Your task to perform on an android device: What time is it in Sydney? Image 0: 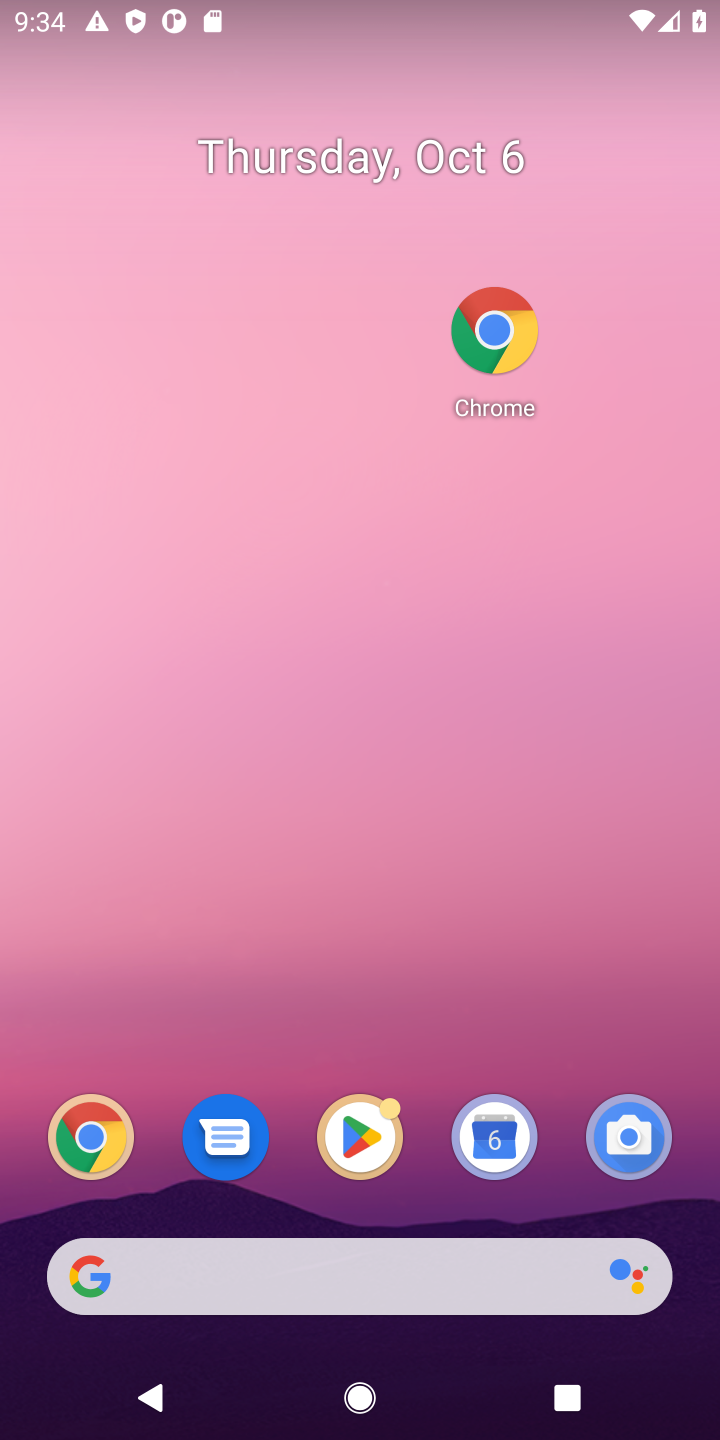
Step 0: click (94, 1131)
Your task to perform on an android device: What time is it in Sydney? Image 1: 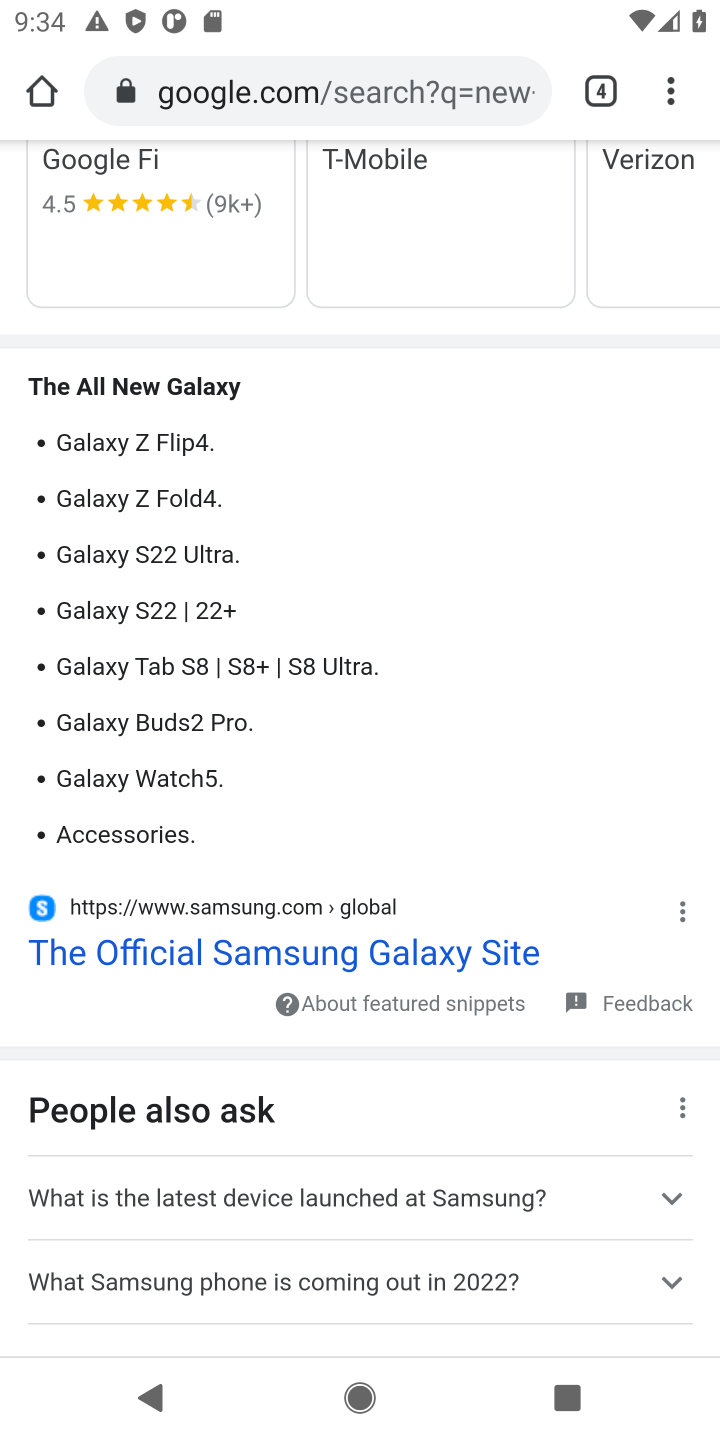
Step 1: click (503, 95)
Your task to perform on an android device: What time is it in Sydney? Image 2: 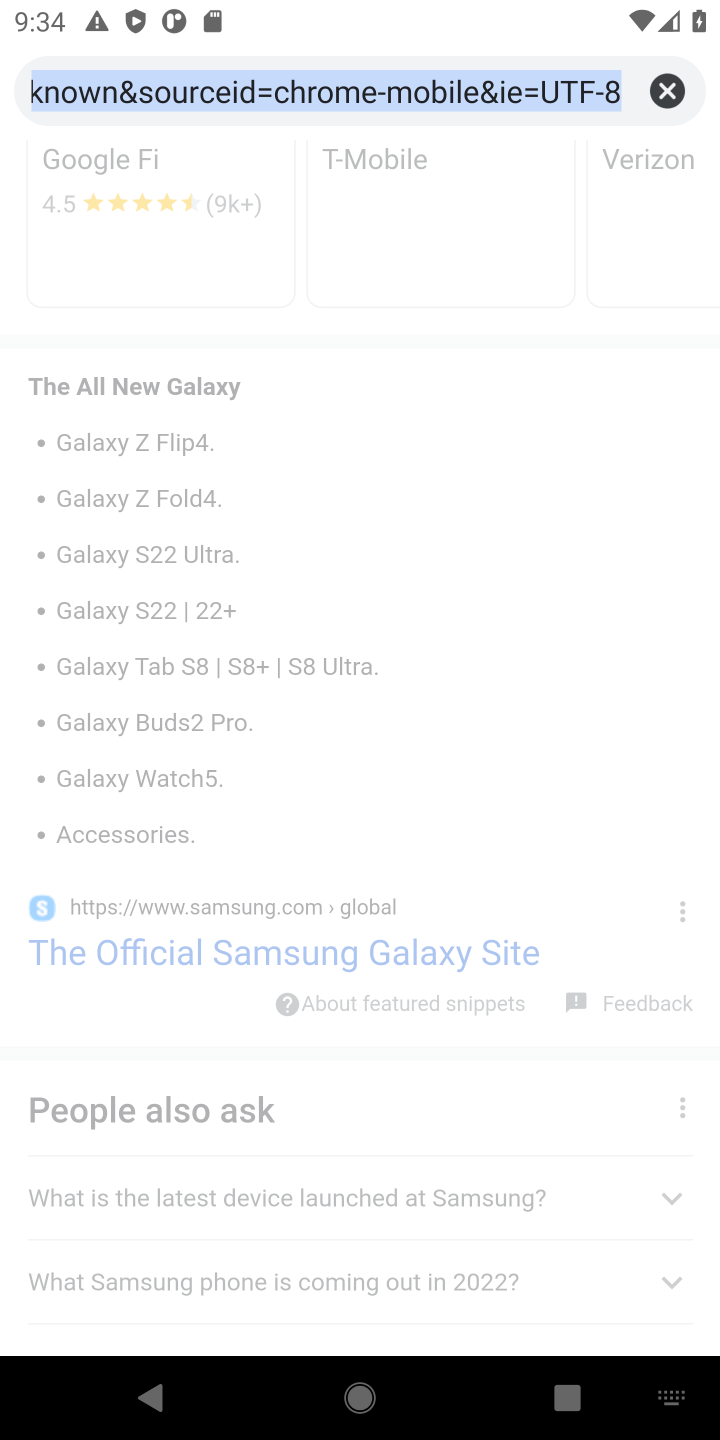
Step 2: click (667, 99)
Your task to perform on an android device: What time is it in Sydney? Image 3: 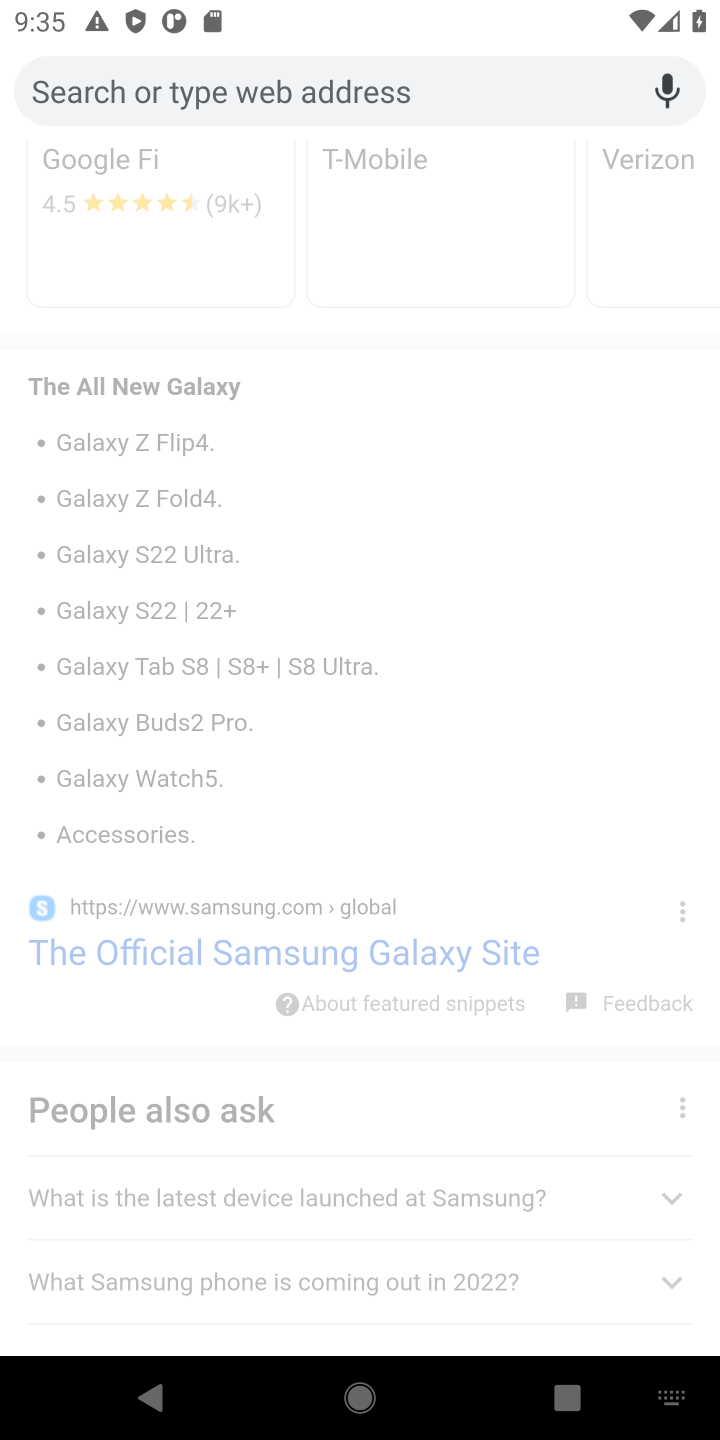
Step 3: type "time in sydney"
Your task to perform on an android device: What time is it in Sydney? Image 4: 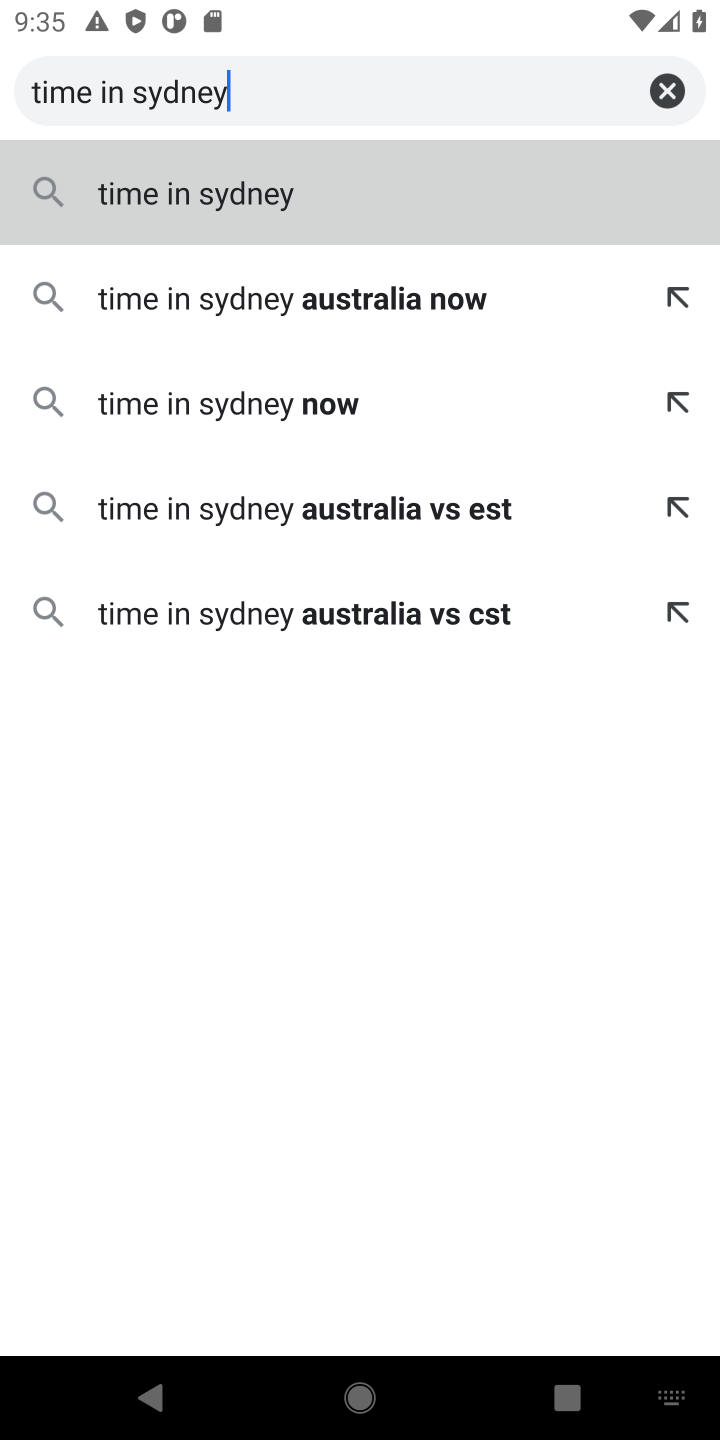
Step 4: click (150, 194)
Your task to perform on an android device: What time is it in Sydney? Image 5: 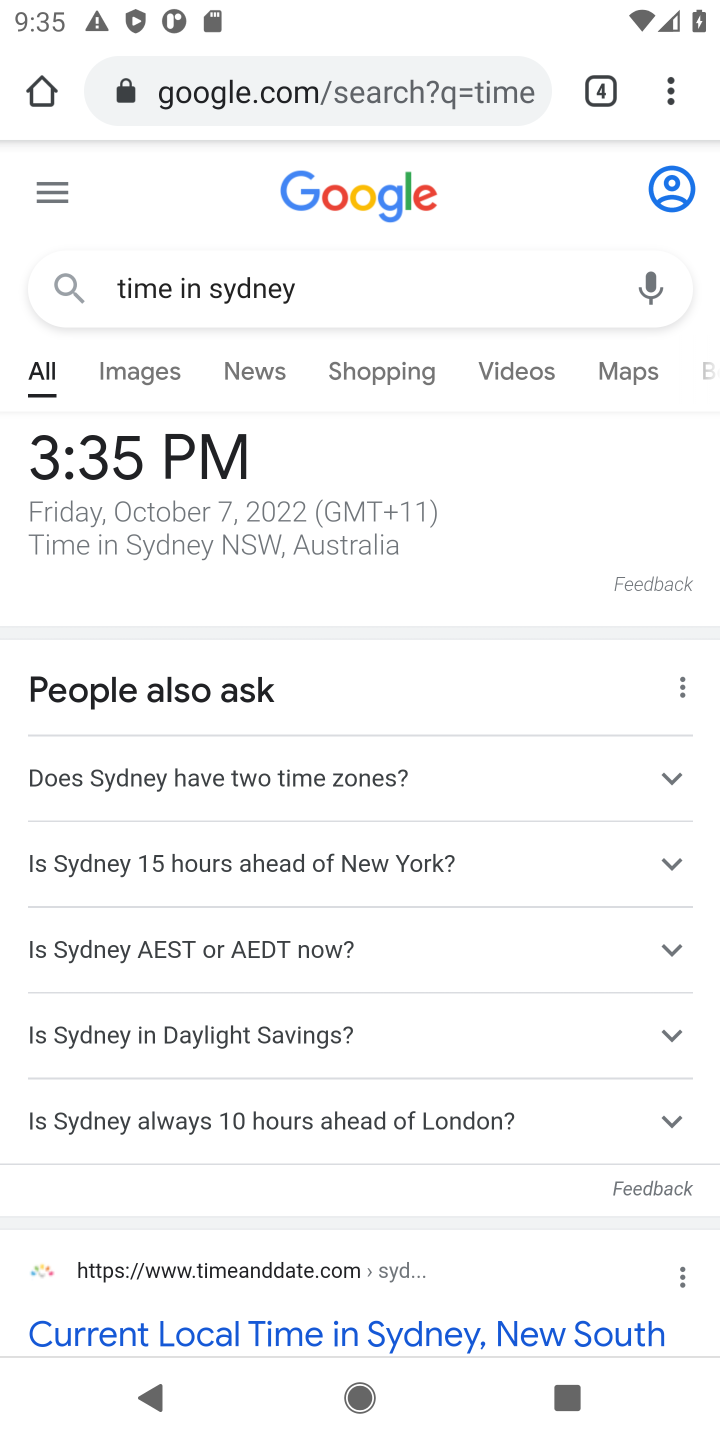
Step 5: task complete